Your task to perform on an android device: What is the news today? Image 0: 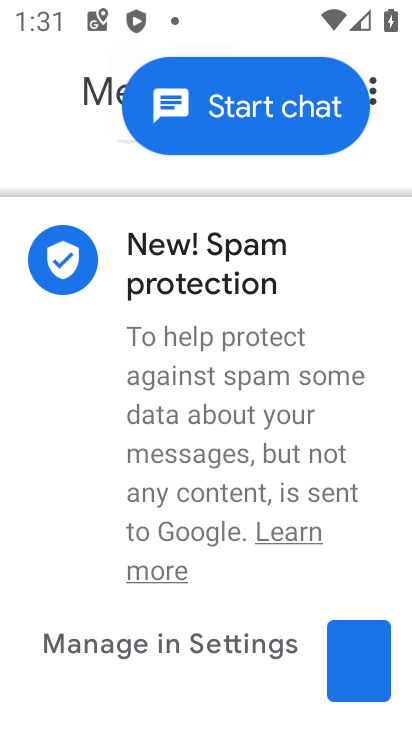
Step 0: press home button
Your task to perform on an android device: What is the news today? Image 1: 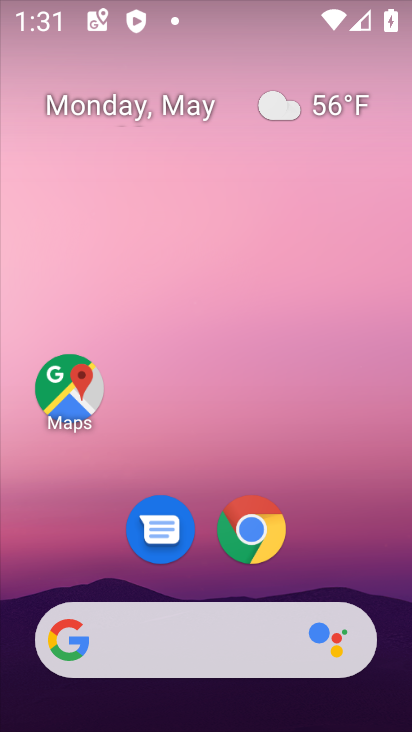
Step 1: click (221, 630)
Your task to perform on an android device: What is the news today? Image 2: 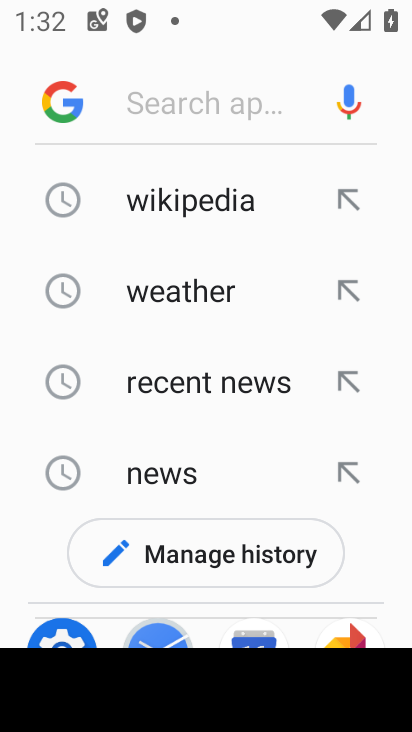
Step 2: type "what is the news today "
Your task to perform on an android device: What is the news today? Image 3: 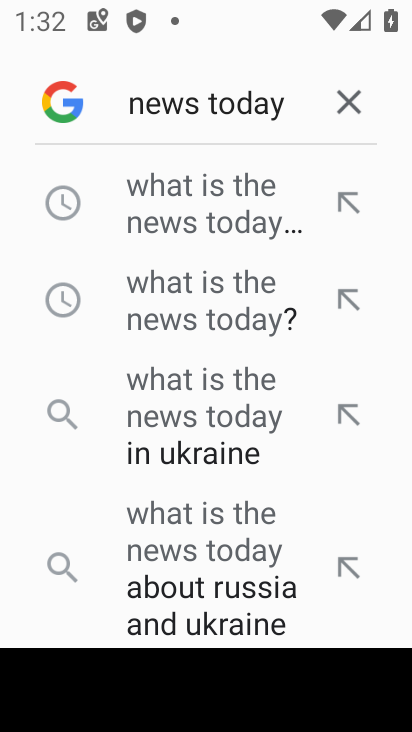
Step 3: click (208, 279)
Your task to perform on an android device: What is the news today? Image 4: 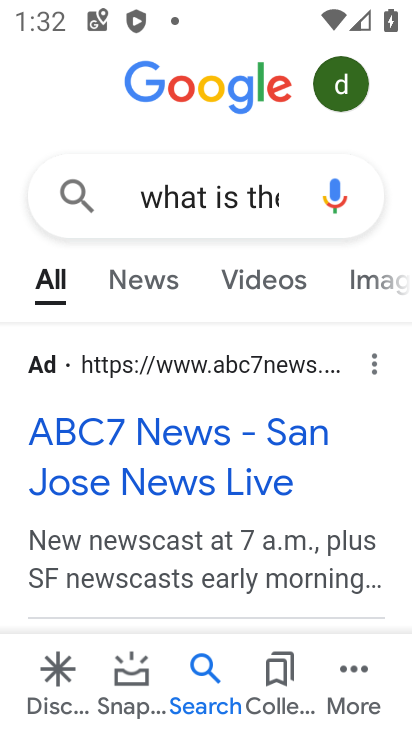
Step 4: click (147, 289)
Your task to perform on an android device: What is the news today? Image 5: 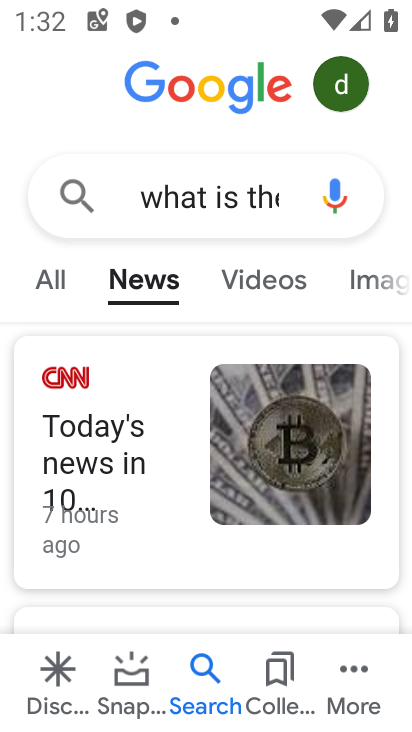
Step 5: task complete